Your task to perform on an android device: Turn on the flashlight Image 0: 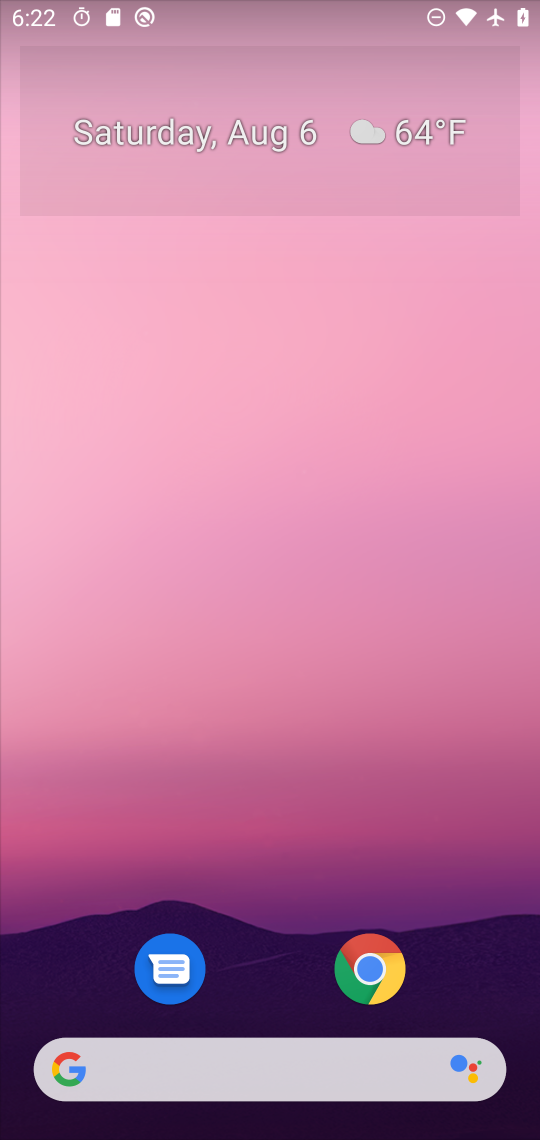
Step 0: press home button
Your task to perform on an android device: Turn on the flashlight Image 1: 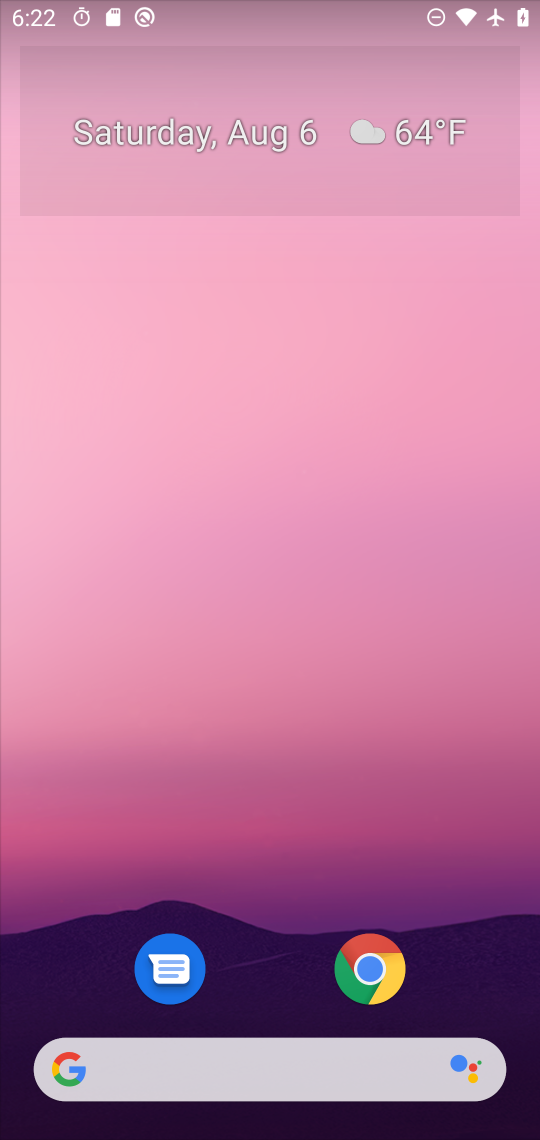
Step 1: task complete